Your task to perform on an android device: turn on improve location accuracy Image 0: 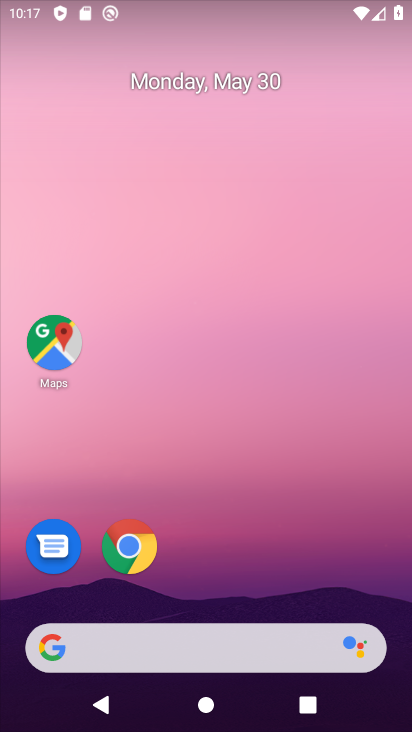
Step 0: press home button
Your task to perform on an android device: turn on improve location accuracy Image 1: 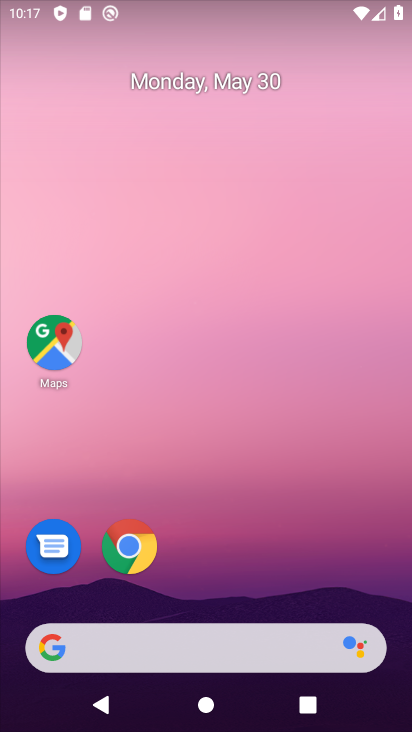
Step 1: drag from (223, 599) to (245, 41)
Your task to perform on an android device: turn on improve location accuracy Image 2: 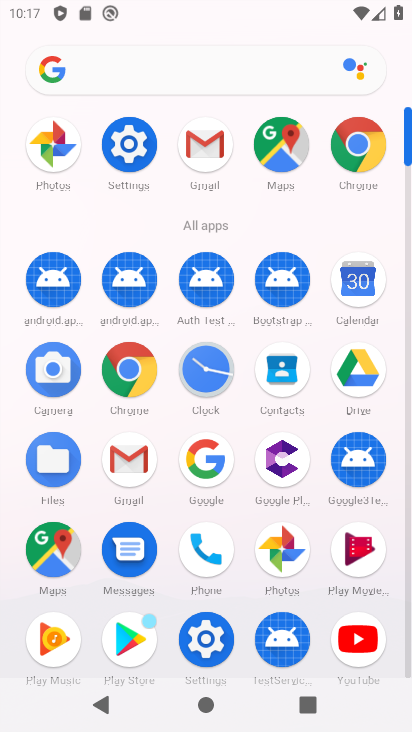
Step 2: click (203, 631)
Your task to perform on an android device: turn on improve location accuracy Image 3: 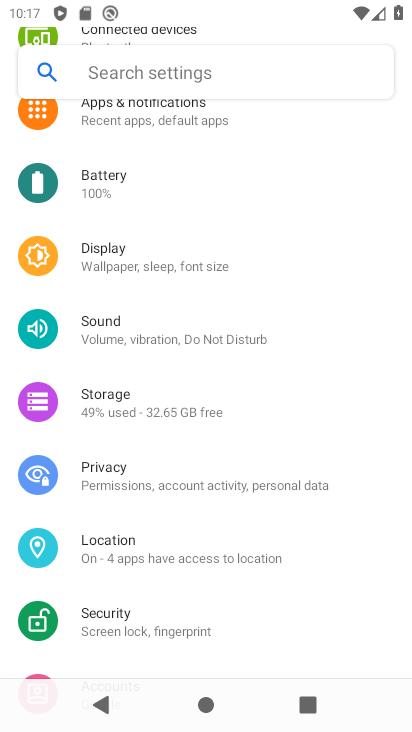
Step 3: click (143, 545)
Your task to perform on an android device: turn on improve location accuracy Image 4: 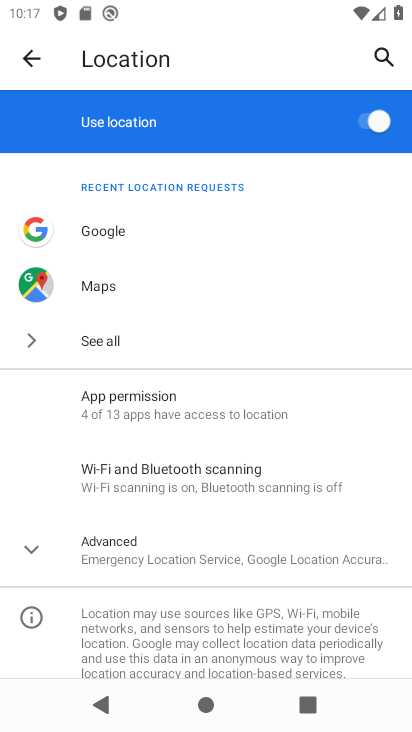
Step 4: click (114, 548)
Your task to perform on an android device: turn on improve location accuracy Image 5: 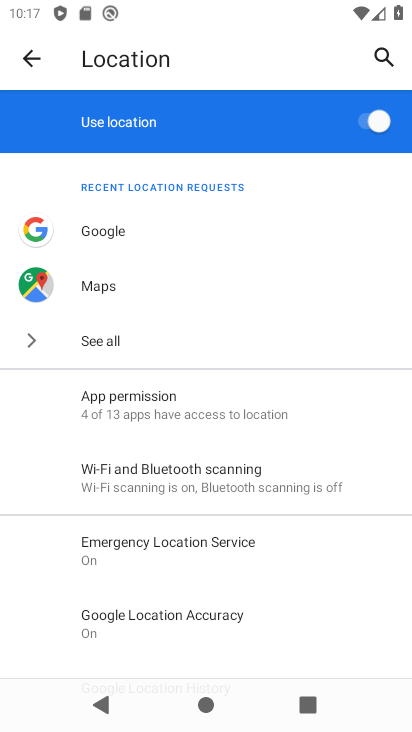
Step 5: click (147, 618)
Your task to perform on an android device: turn on improve location accuracy Image 6: 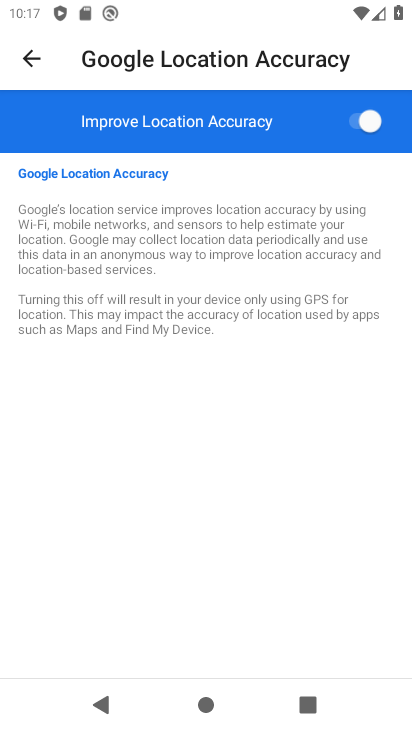
Step 6: task complete